Your task to perform on an android device: Search for macbook pro on costco.com, select the first entry, add it to the cart, then select checkout. Image 0: 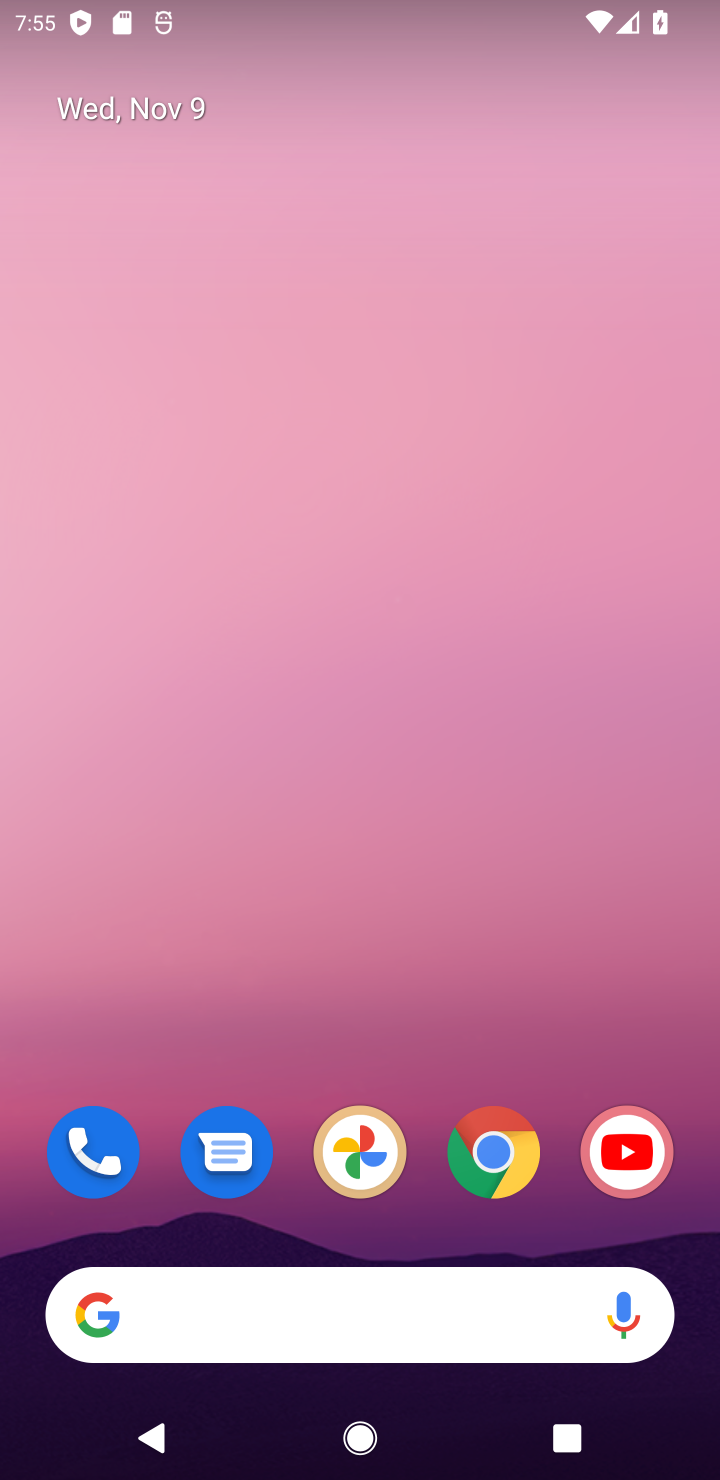
Step 0: press home button
Your task to perform on an android device: Search for macbook pro on costco.com, select the first entry, add it to the cart, then select checkout. Image 1: 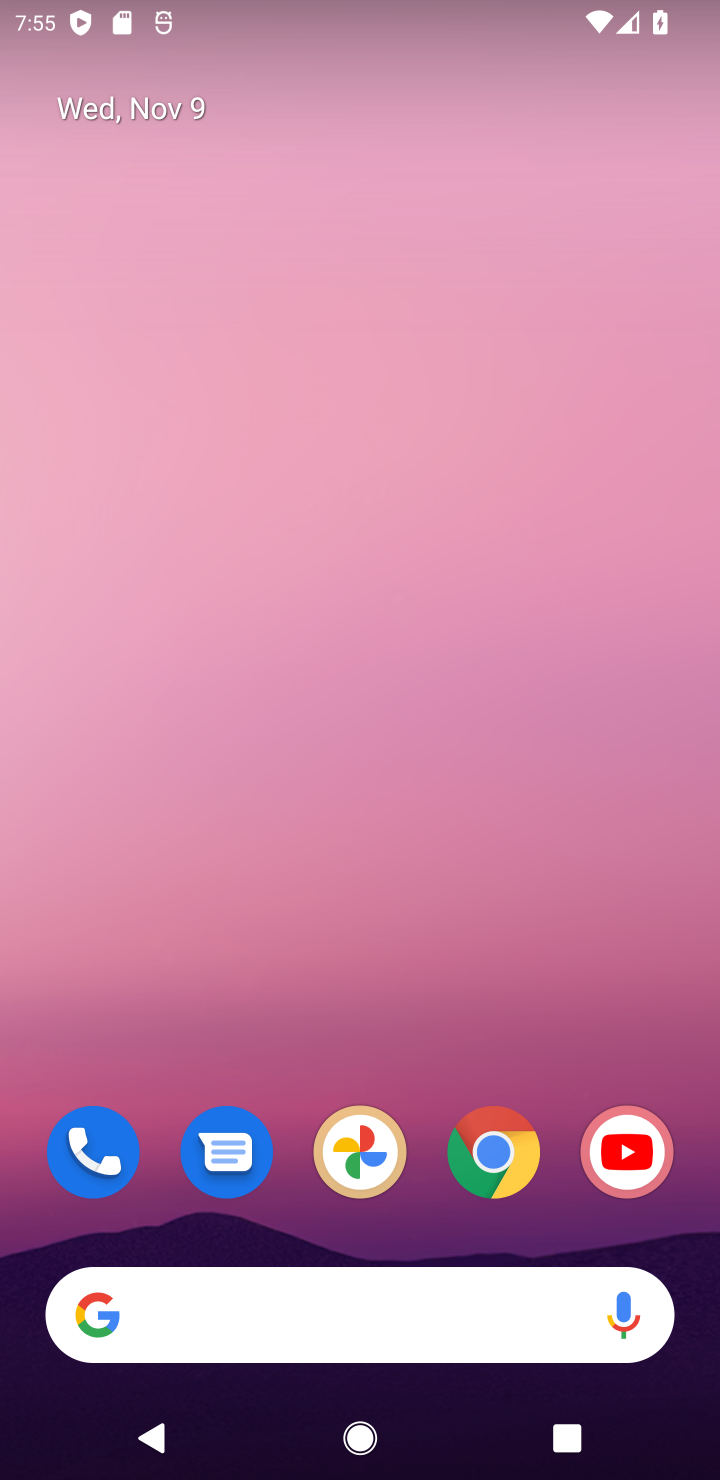
Step 1: click (494, 1147)
Your task to perform on an android device: Search for macbook pro on costco.com, select the first entry, add it to the cart, then select checkout. Image 2: 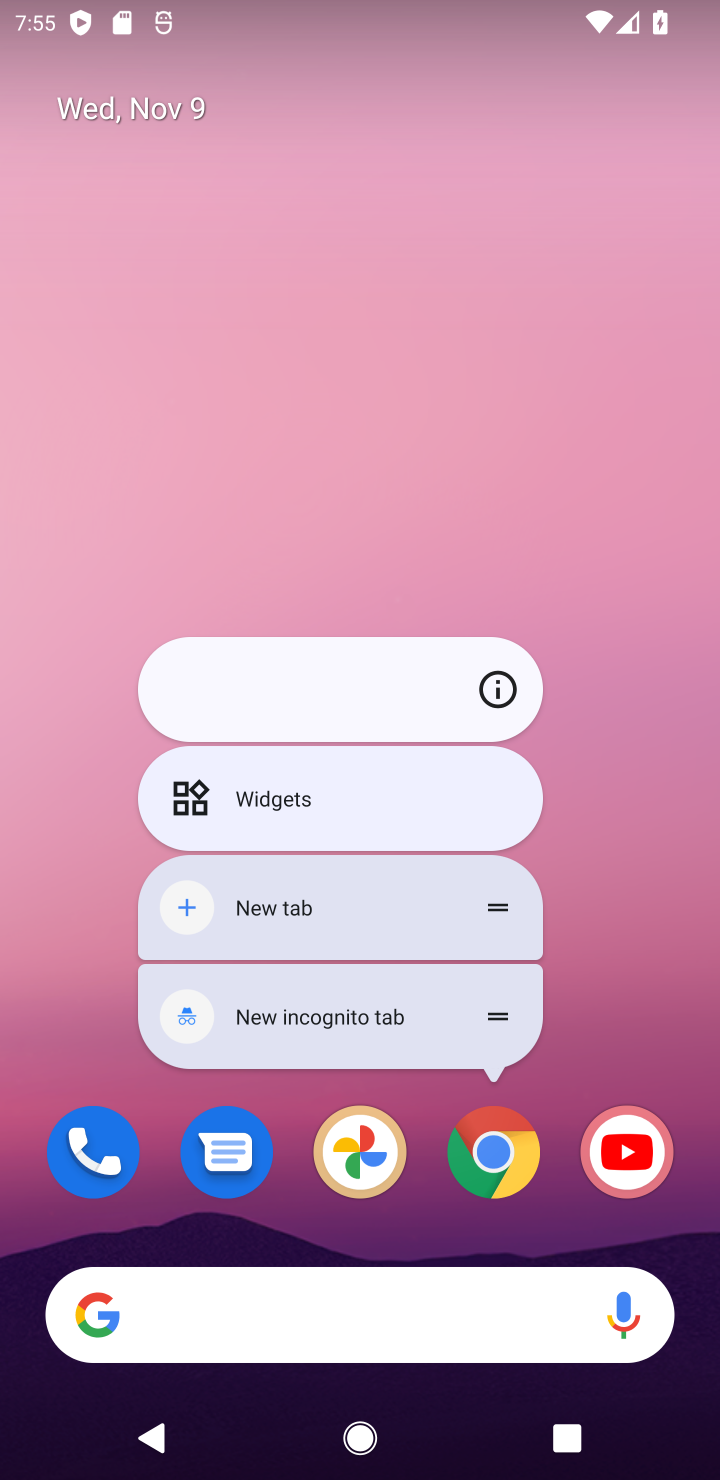
Step 2: click (492, 1151)
Your task to perform on an android device: Search for macbook pro on costco.com, select the first entry, add it to the cart, then select checkout. Image 3: 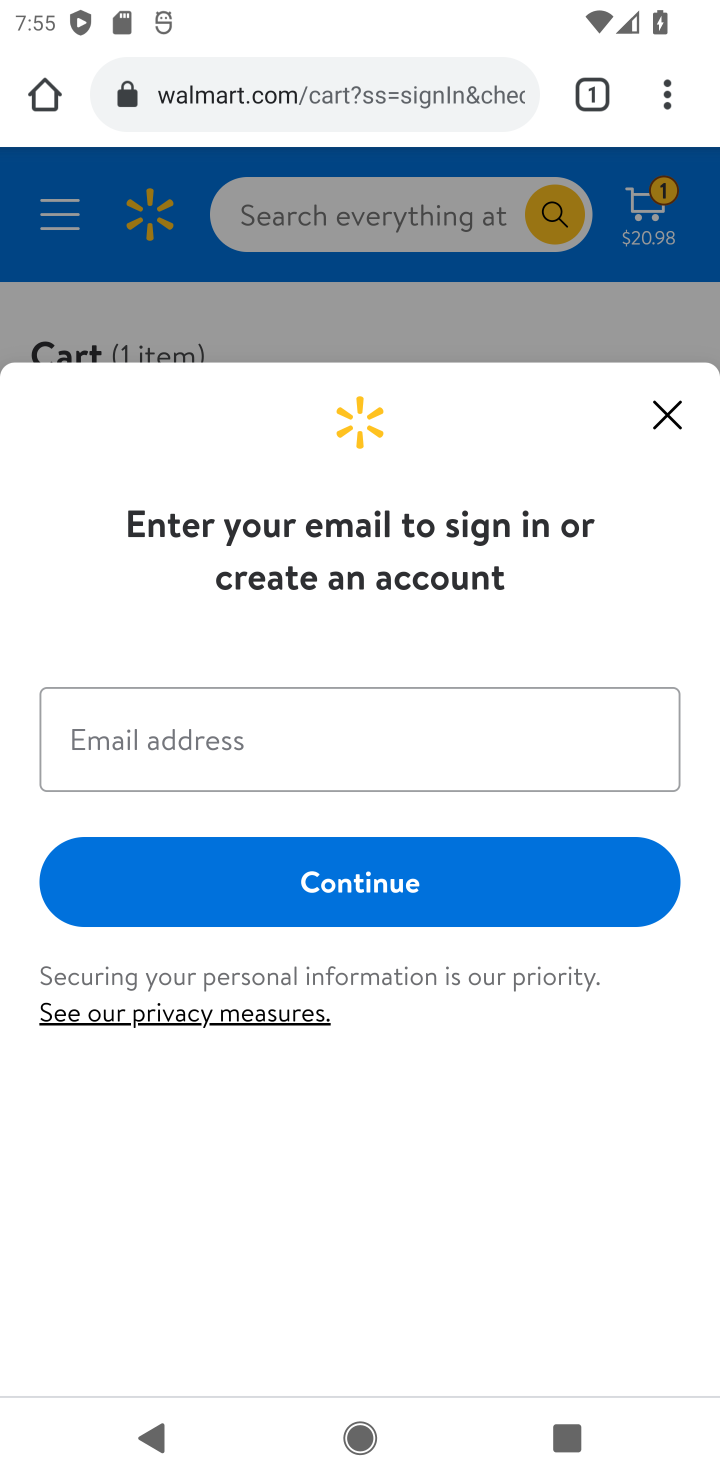
Step 3: click (340, 100)
Your task to perform on an android device: Search for macbook pro on costco.com, select the first entry, add it to the cart, then select checkout. Image 4: 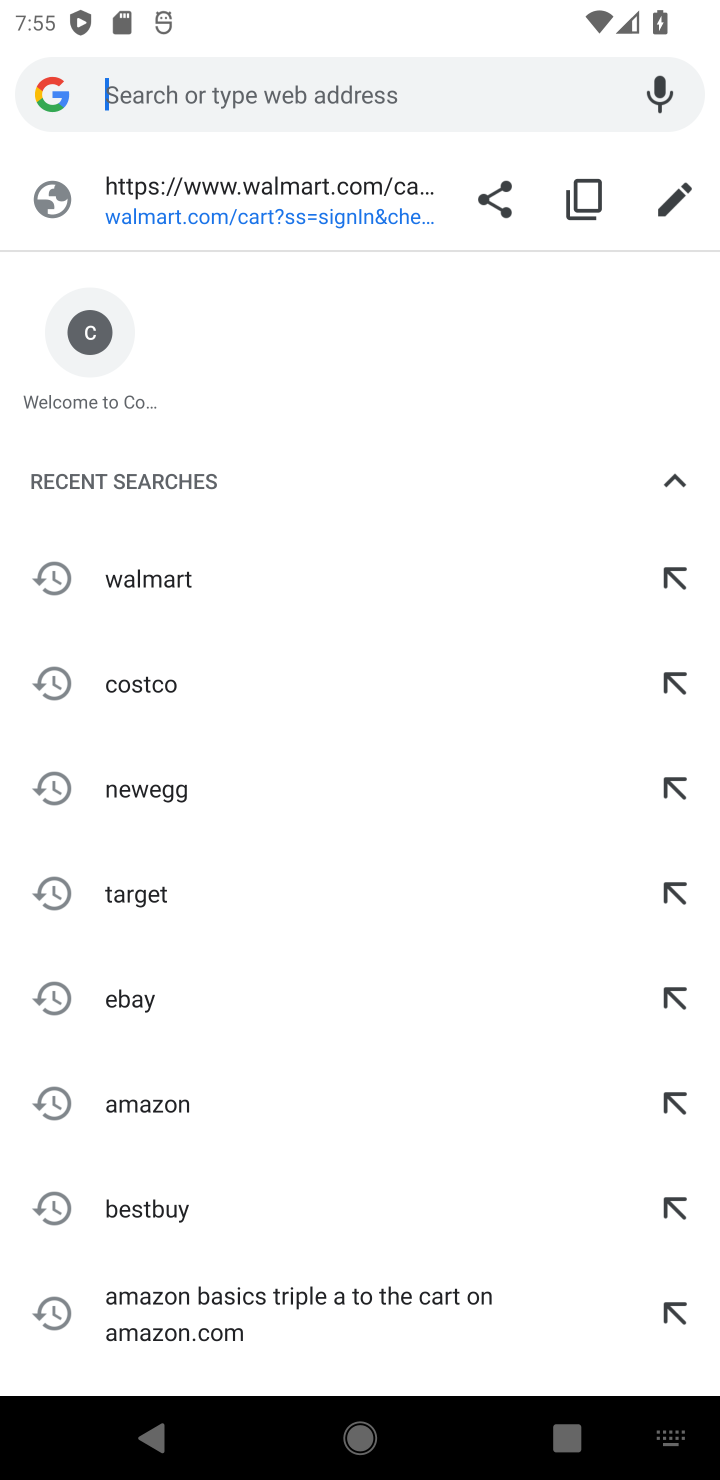
Step 4: click (137, 680)
Your task to perform on an android device: Search for macbook pro on costco.com, select the first entry, add it to the cart, then select checkout. Image 5: 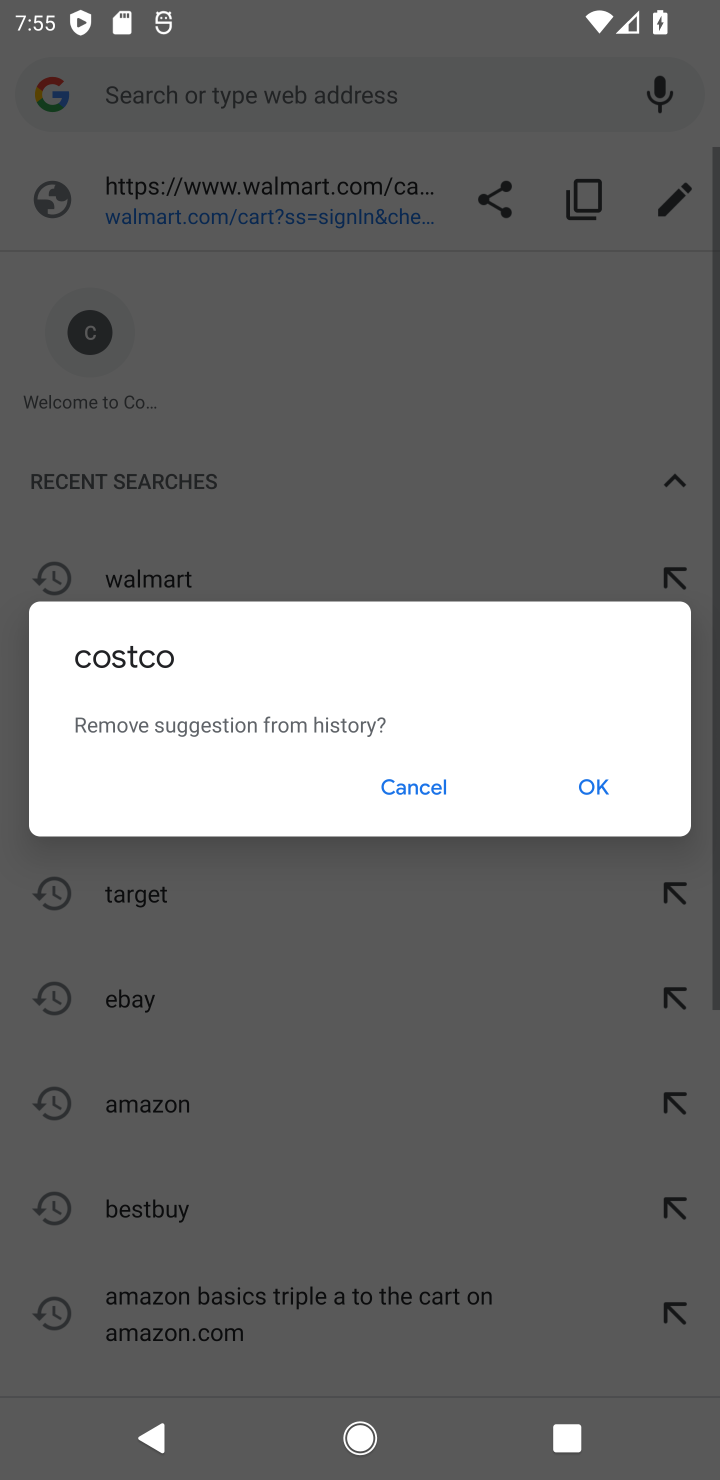
Step 5: click (404, 787)
Your task to perform on an android device: Search for macbook pro on costco.com, select the first entry, add it to the cart, then select checkout. Image 6: 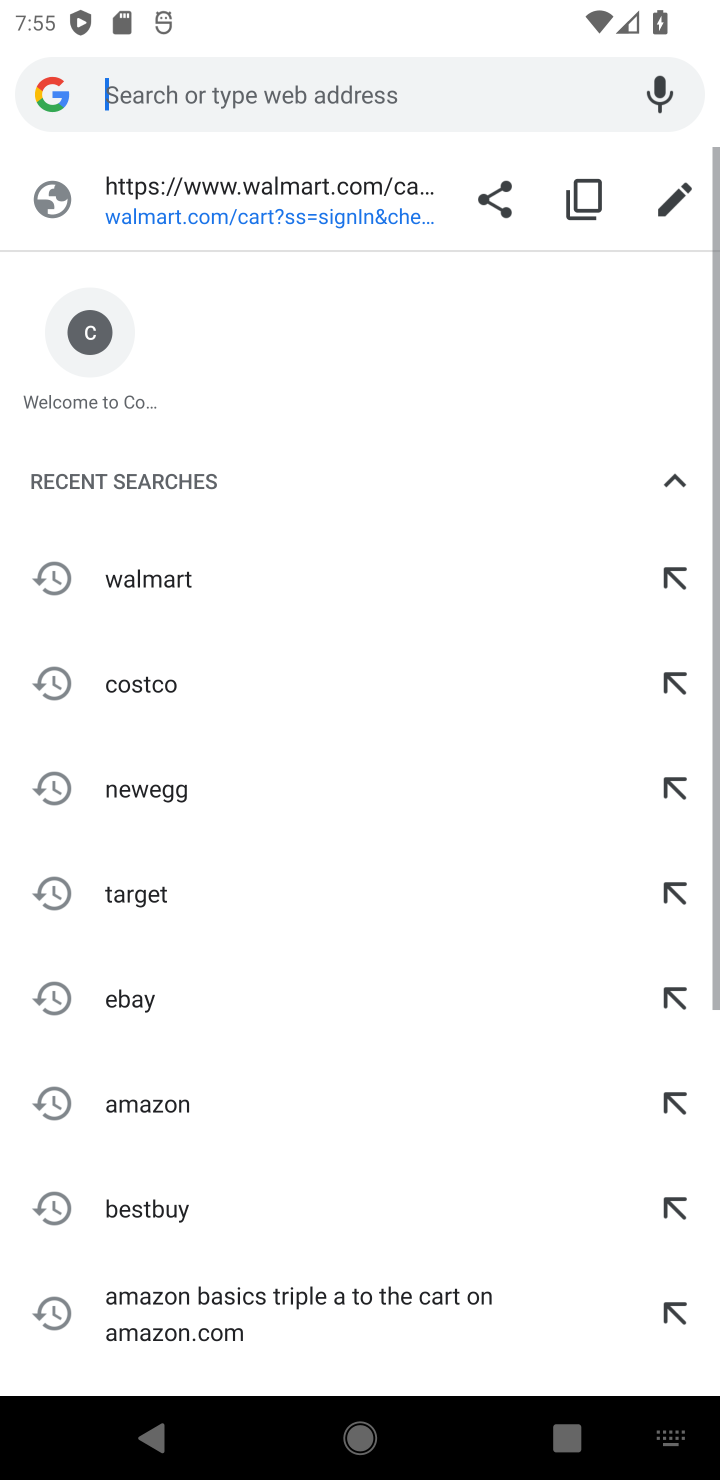
Step 6: click (127, 679)
Your task to perform on an android device: Search for macbook pro on costco.com, select the first entry, add it to the cart, then select checkout. Image 7: 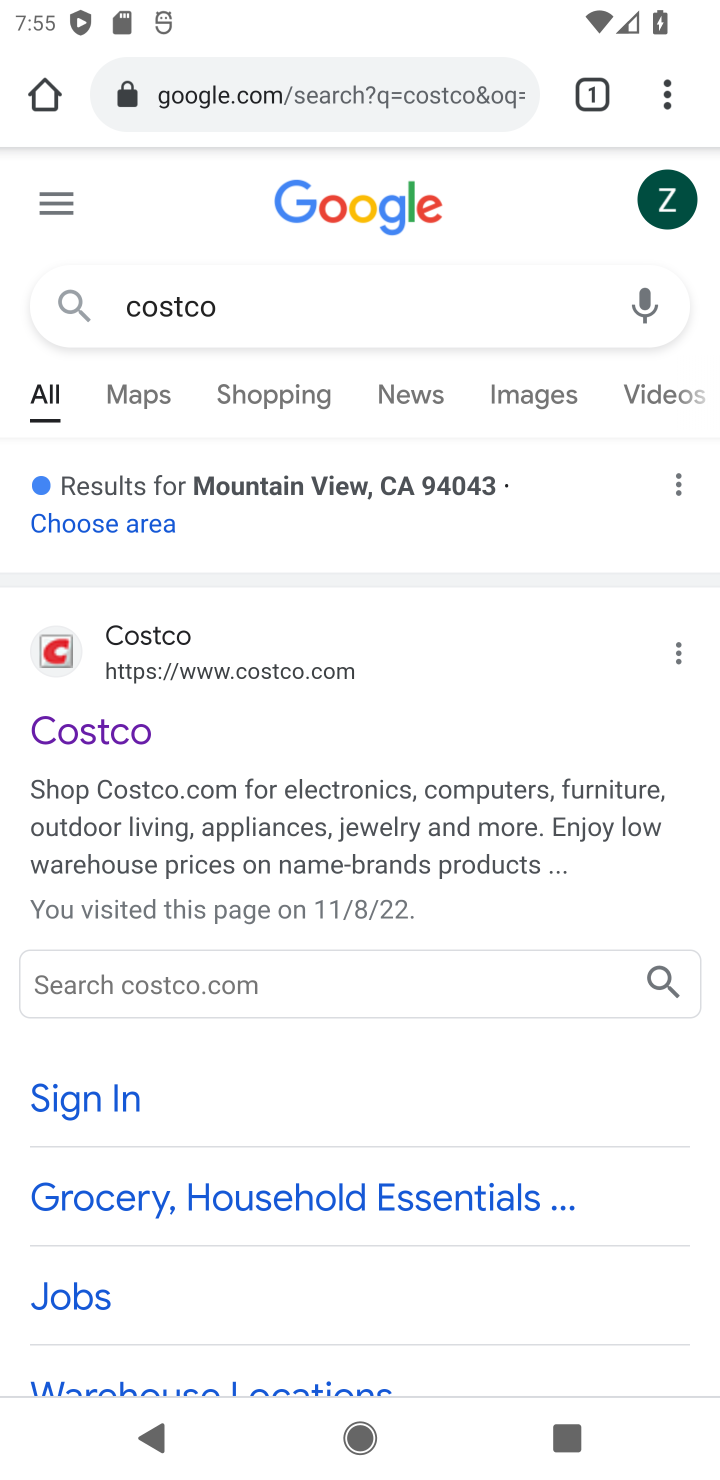
Step 7: click (123, 733)
Your task to perform on an android device: Search for macbook pro on costco.com, select the first entry, add it to the cart, then select checkout. Image 8: 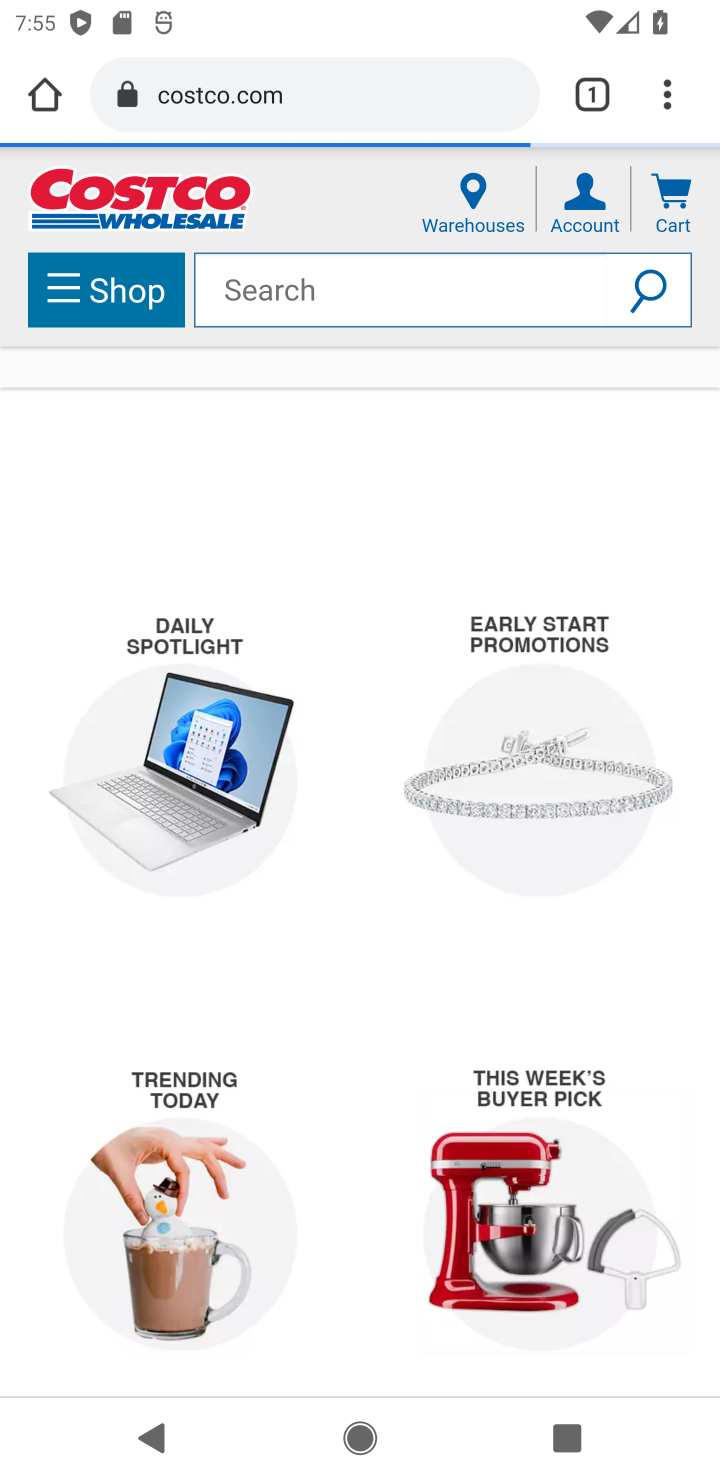
Step 8: click (278, 290)
Your task to perform on an android device: Search for macbook pro on costco.com, select the first entry, add it to the cart, then select checkout. Image 9: 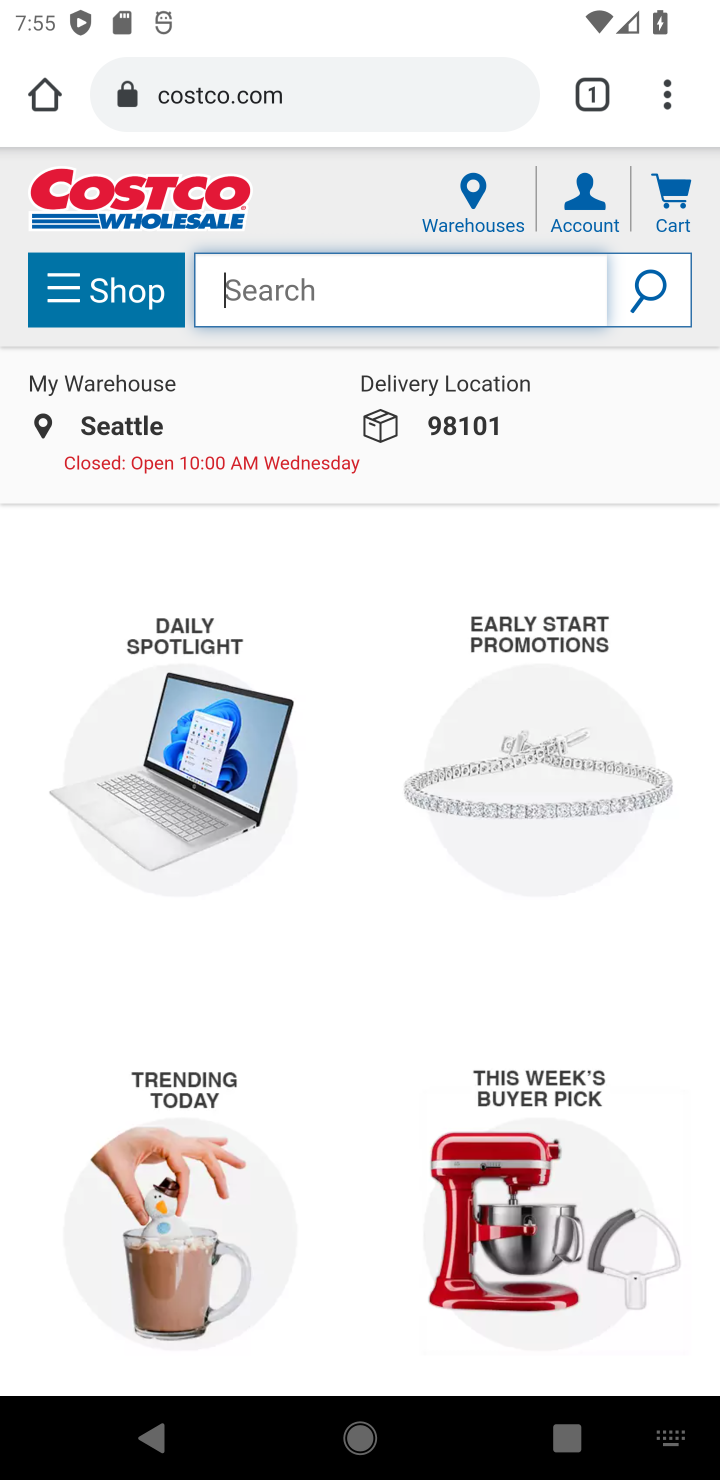
Step 9: type " macbook pro"
Your task to perform on an android device: Search for macbook pro on costco.com, select the first entry, add it to the cart, then select checkout. Image 10: 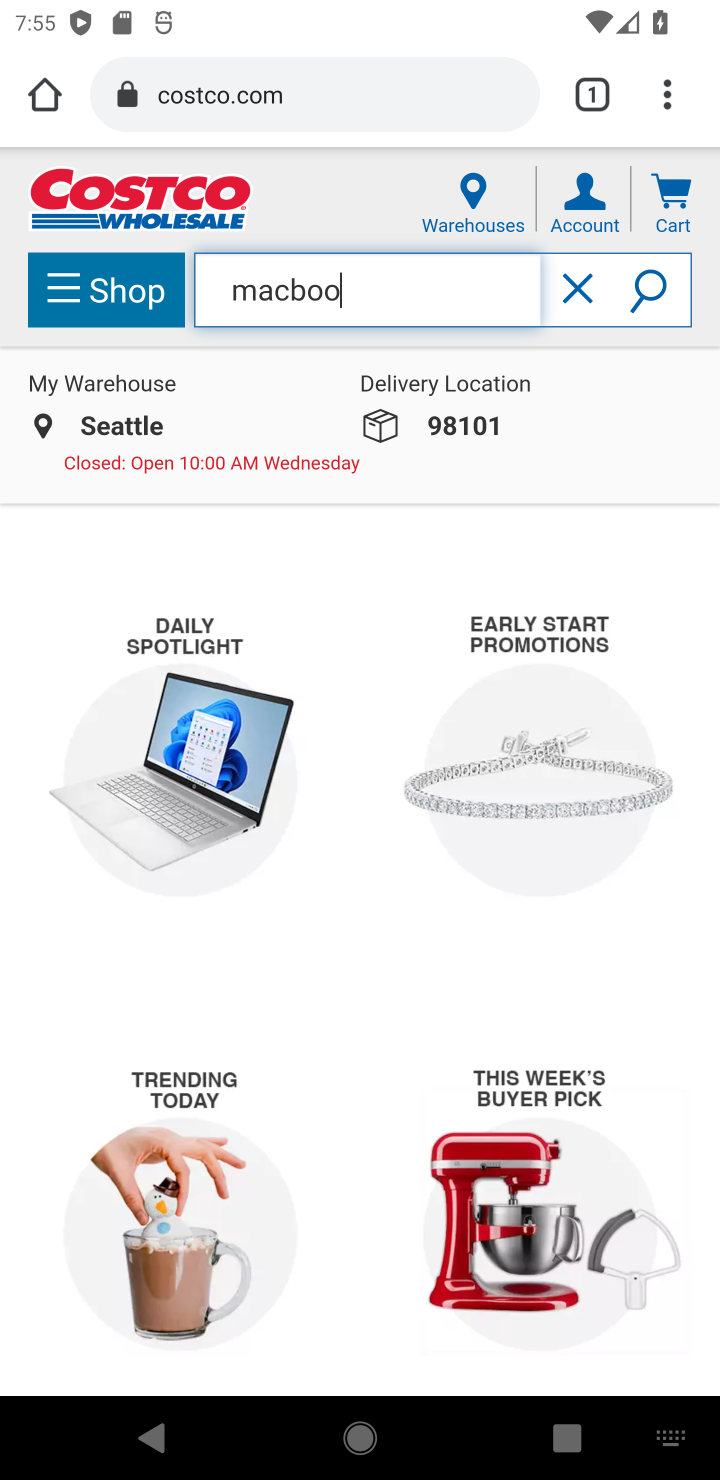
Step 10: press enter
Your task to perform on an android device: Search for macbook pro on costco.com, select the first entry, add it to the cart, then select checkout. Image 11: 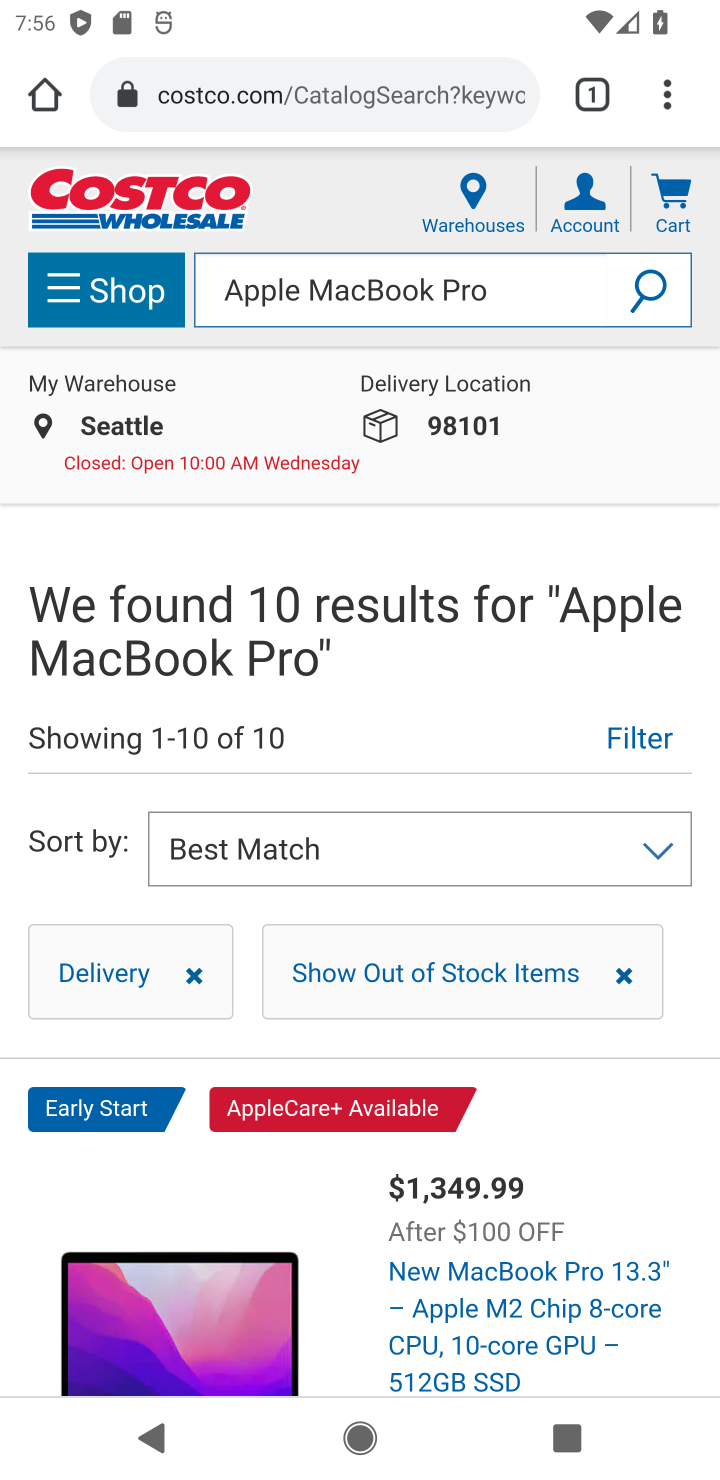
Step 11: drag from (349, 1214) to (432, 808)
Your task to perform on an android device: Search for macbook pro on costco.com, select the first entry, add it to the cart, then select checkout. Image 12: 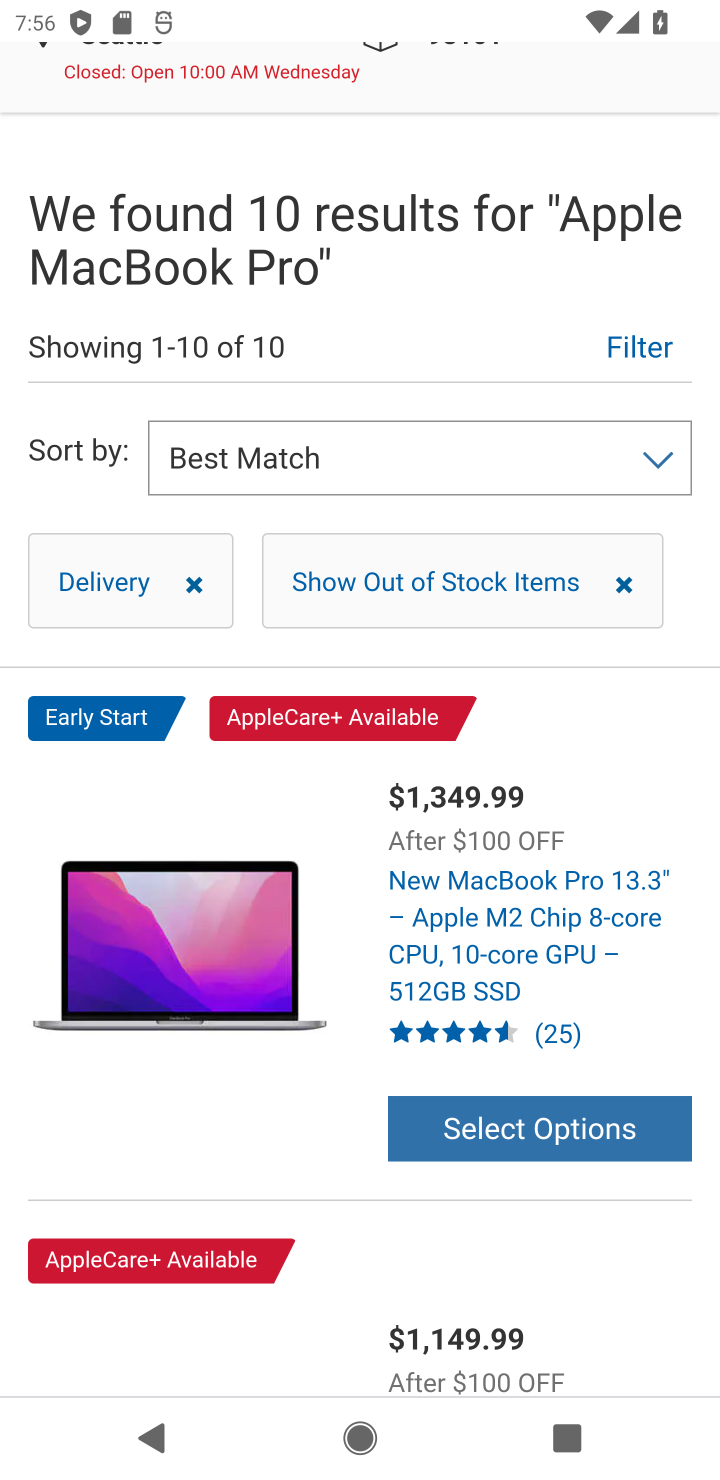
Step 12: click (472, 903)
Your task to perform on an android device: Search for macbook pro on costco.com, select the first entry, add it to the cart, then select checkout. Image 13: 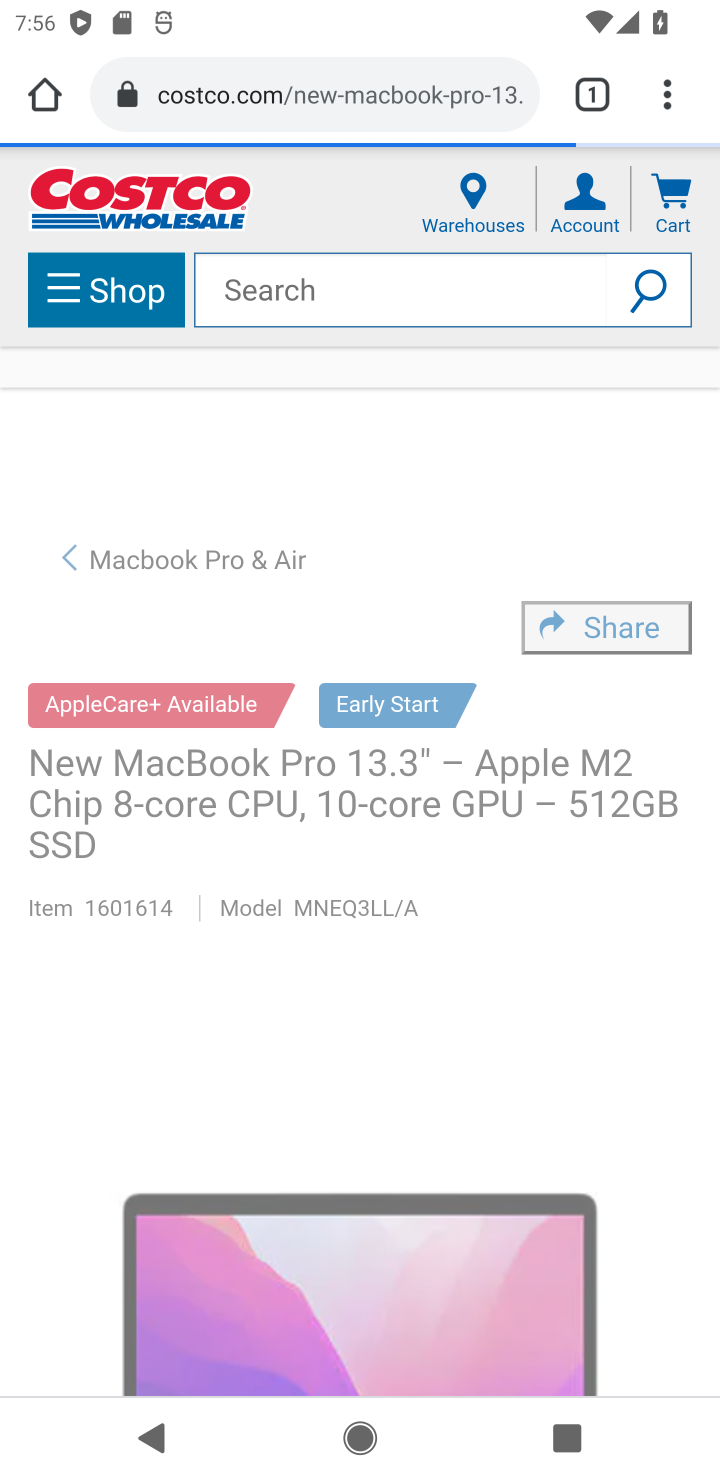
Step 13: drag from (225, 1067) to (395, 253)
Your task to perform on an android device: Search for macbook pro on costco.com, select the first entry, add it to the cart, then select checkout. Image 14: 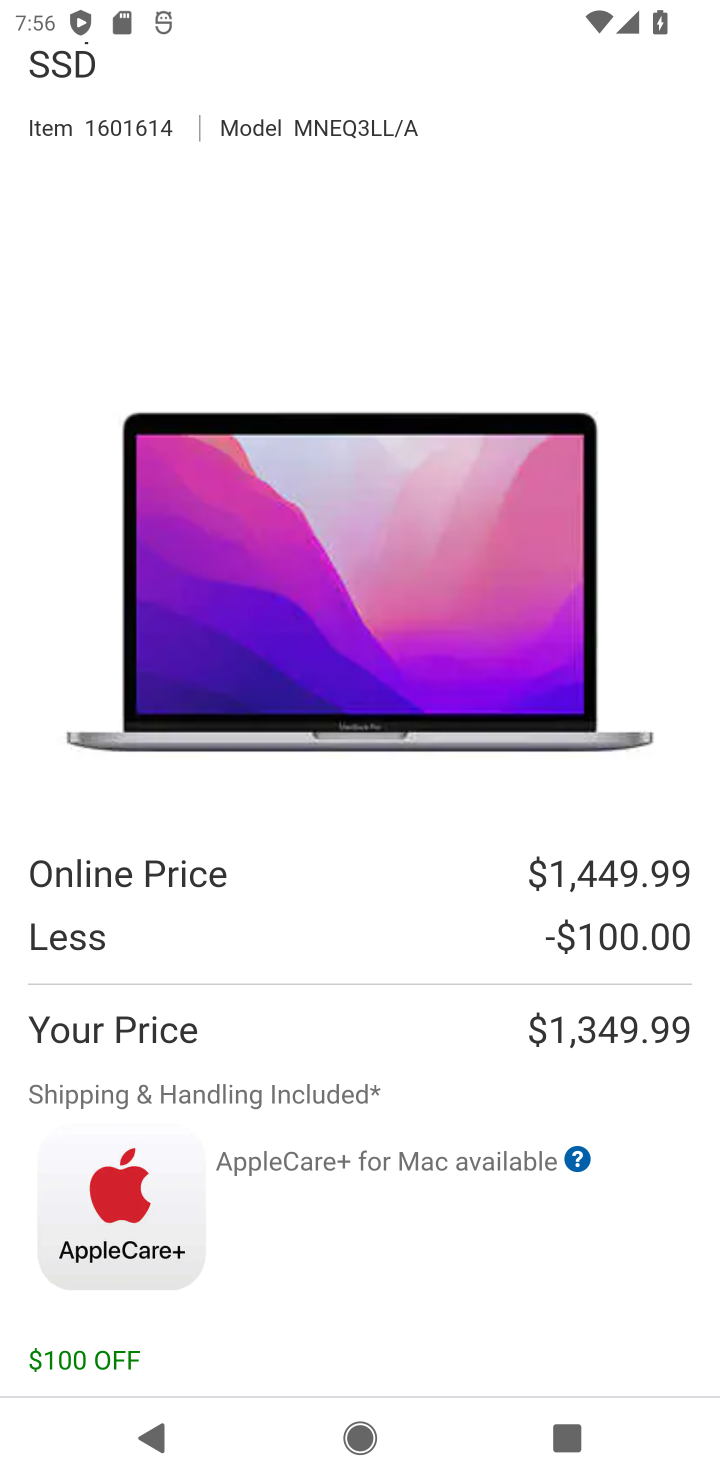
Step 14: drag from (300, 1305) to (521, 464)
Your task to perform on an android device: Search for macbook pro on costco.com, select the first entry, add it to the cart, then select checkout. Image 15: 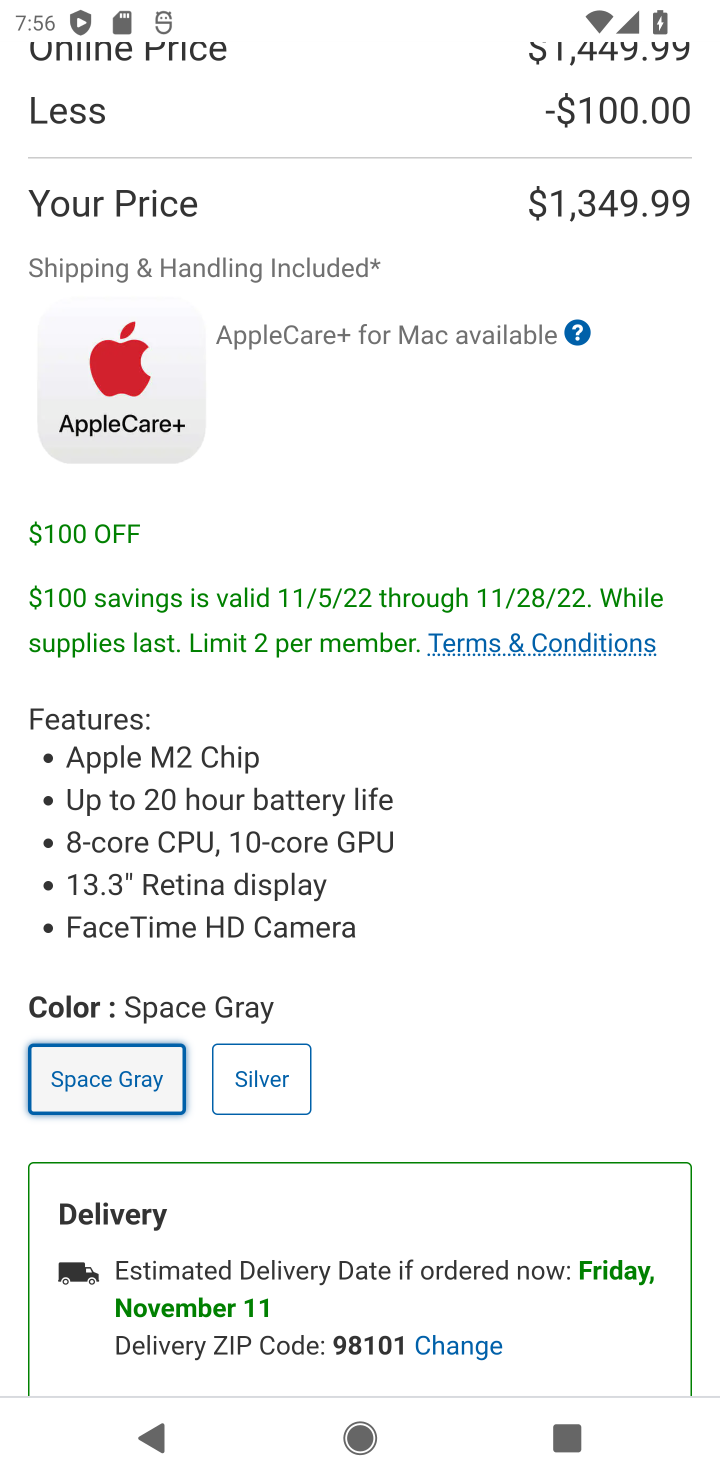
Step 15: drag from (370, 1294) to (485, 453)
Your task to perform on an android device: Search for macbook pro on costco.com, select the first entry, add it to the cart, then select checkout. Image 16: 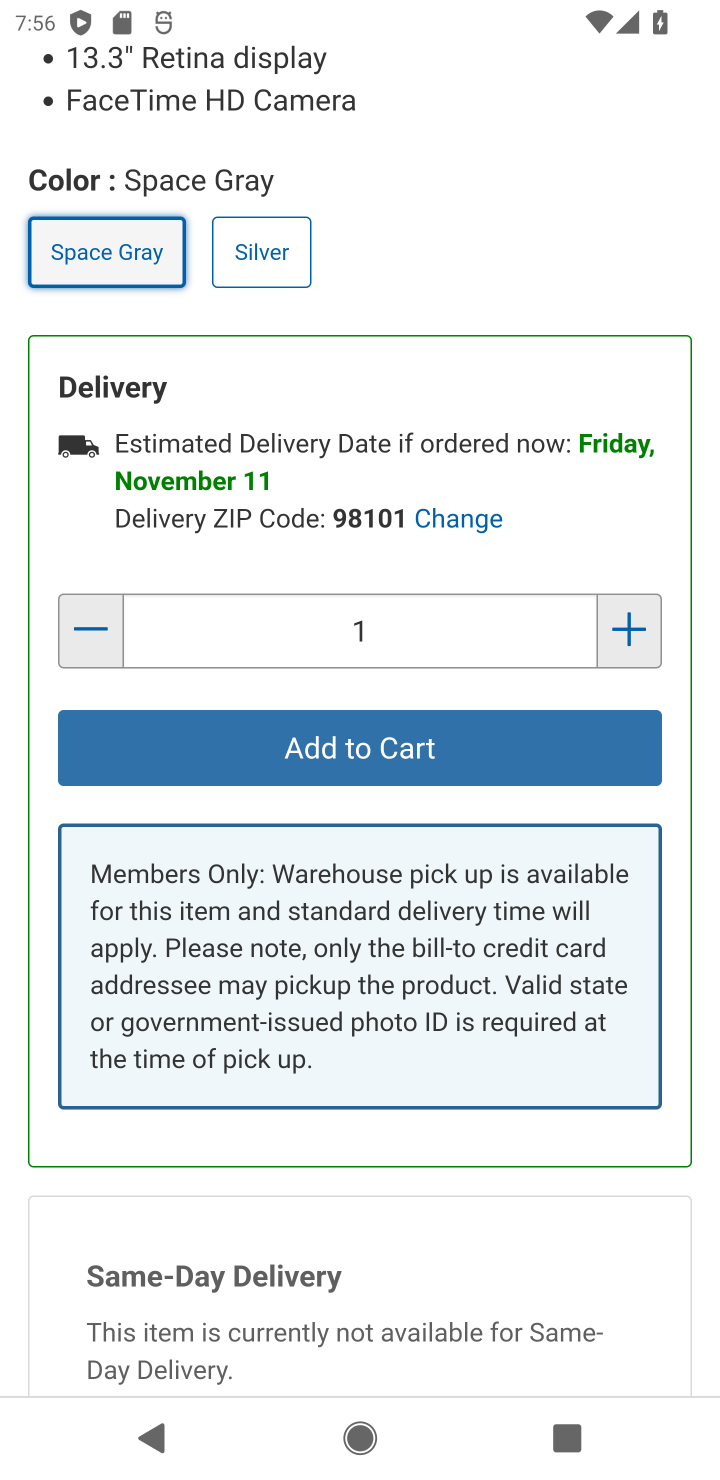
Step 16: drag from (367, 1316) to (395, 149)
Your task to perform on an android device: Search for macbook pro on costco.com, select the first entry, add it to the cart, then select checkout. Image 17: 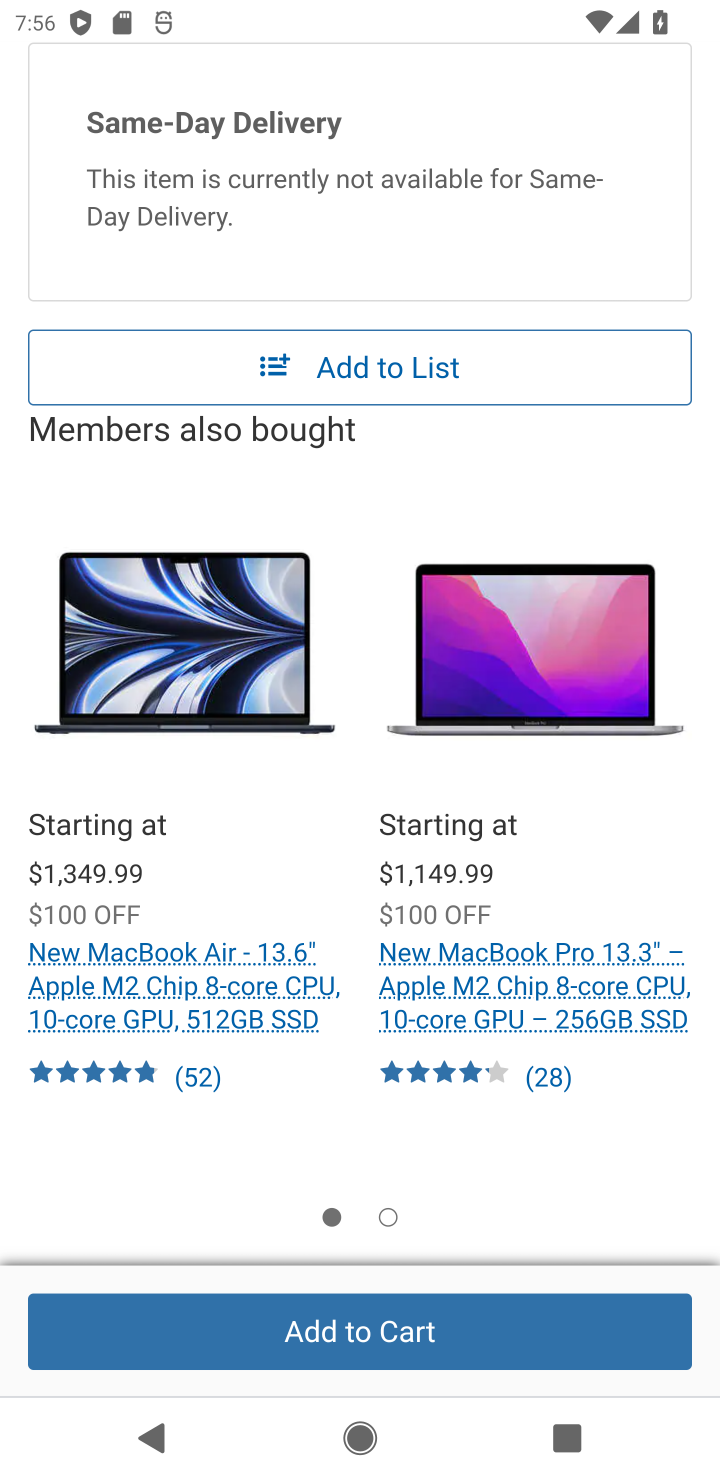
Step 17: click (383, 1330)
Your task to perform on an android device: Search for macbook pro on costco.com, select the first entry, add it to the cart, then select checkout. Image 18: 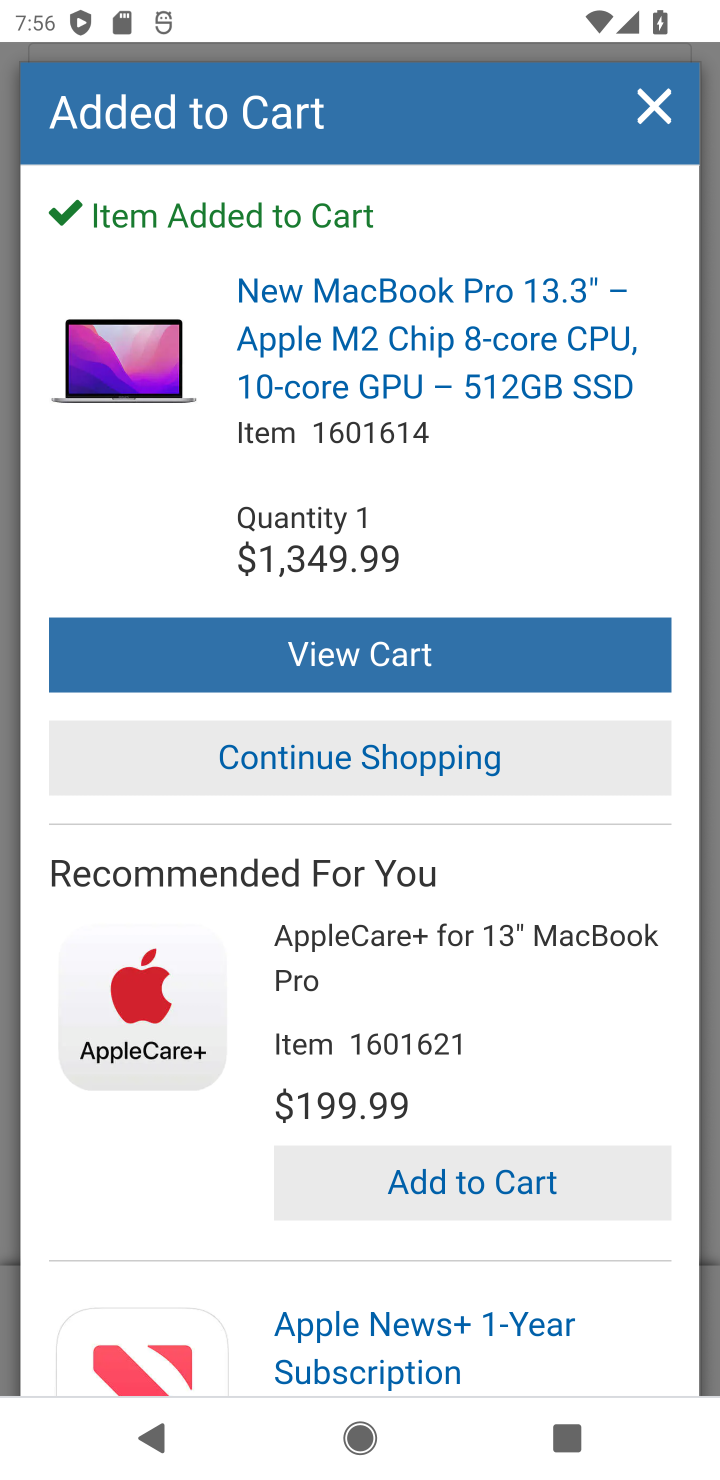
Step 18: click (376, 657)
Your task to perform on an android device: Search for macbook pro on costco.com, select the first entry, add it to the cart, then select checkout. Image 19: 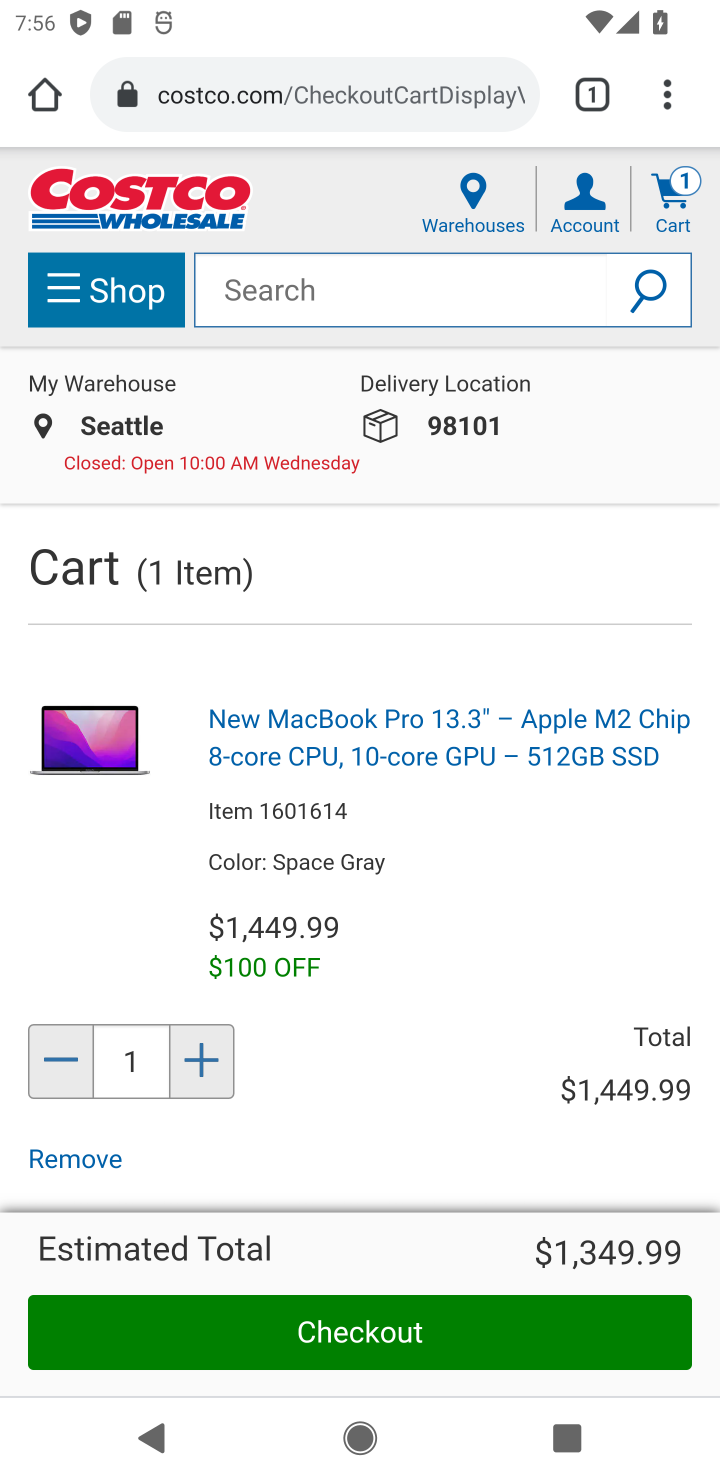
Step 19: click (356, 1335)
Your task to perform on an android device: Search for macbook pro on costco.com, select the first entry, add it to the cart, then select checkout. Image 20: 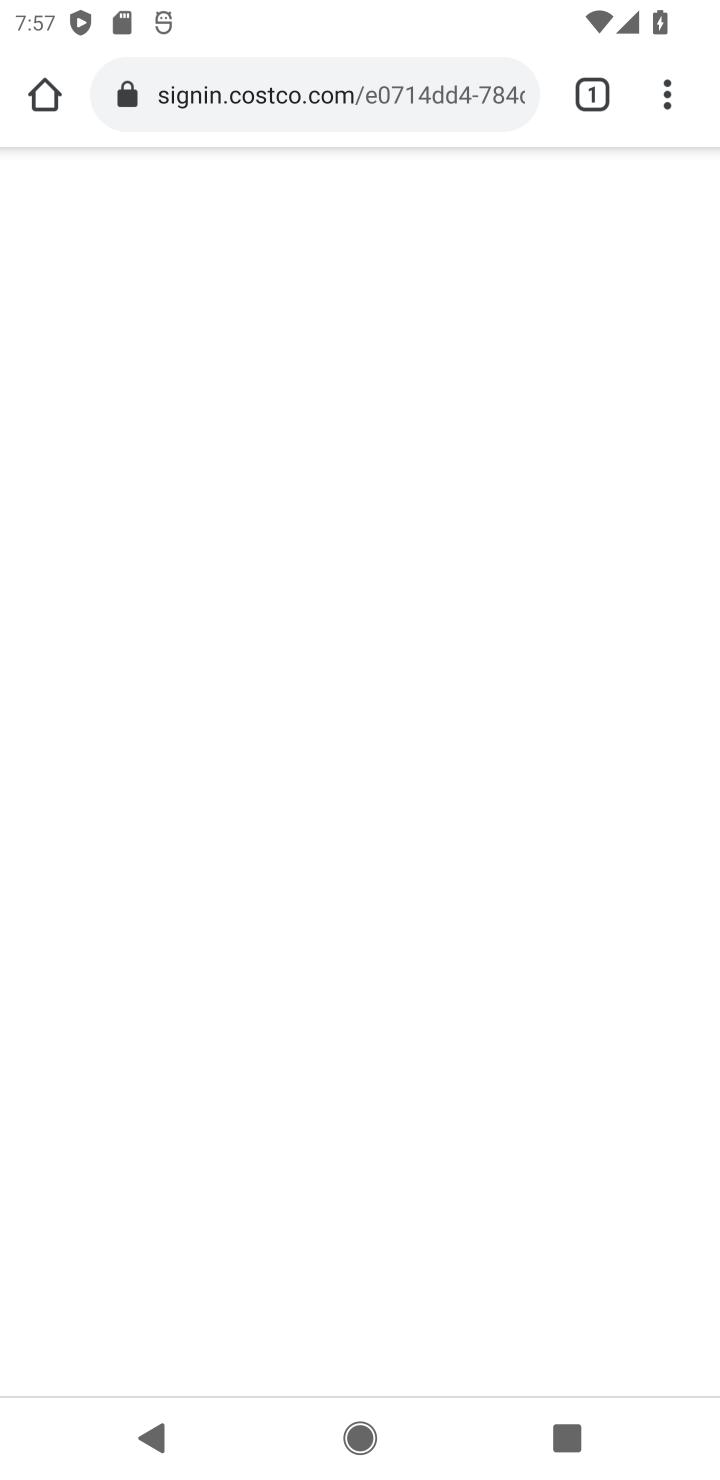
Step 20: click (350, 1337)
Your task to perform on an android device: Search for macbook pro on costco.com, select the first entry, add it to the cart, then select checkout. Image 21: 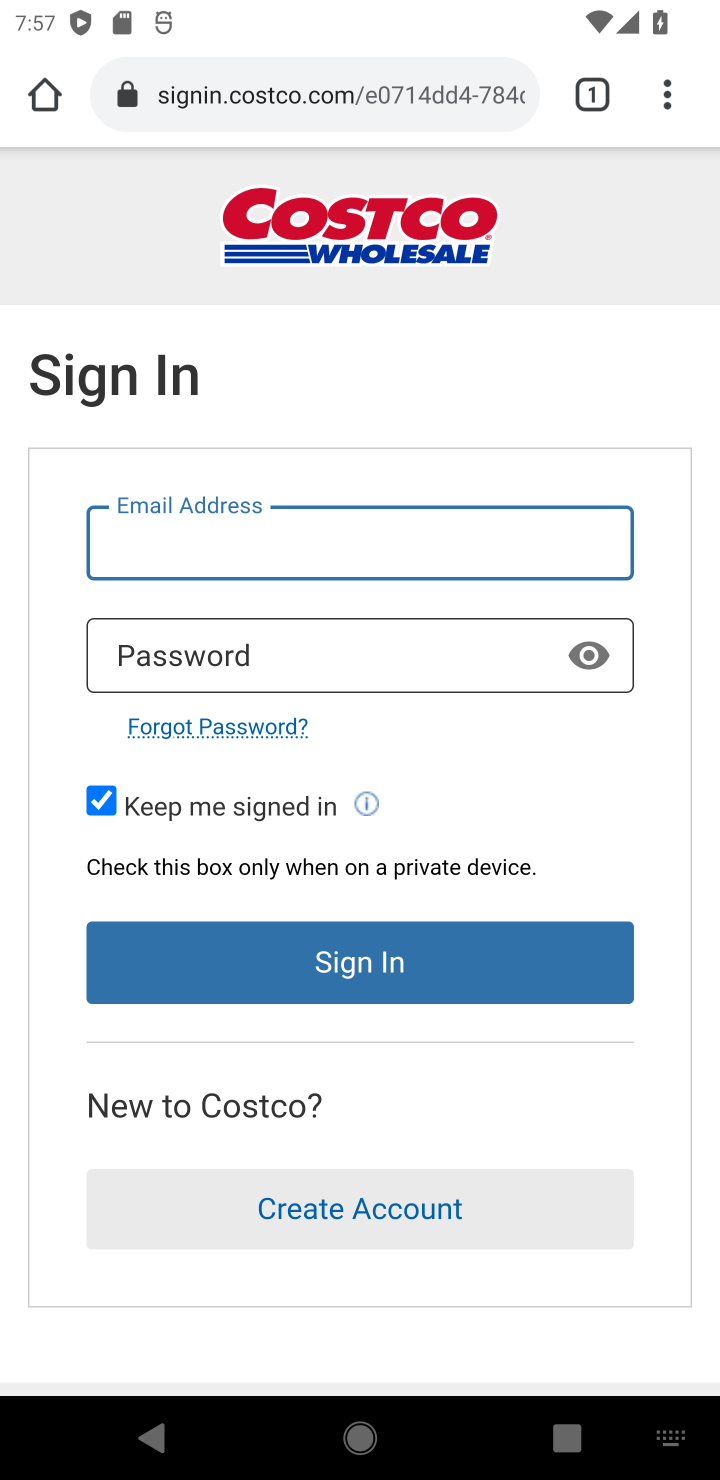
Step 21: task complete